Your task to perform on an android device: open sync settings in chrome Image 0: 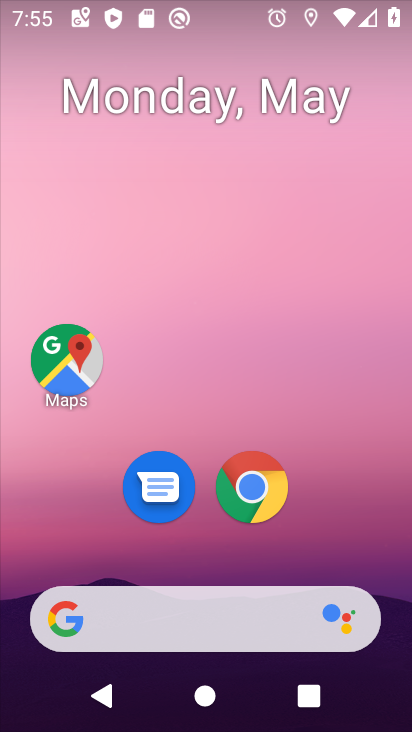
Step 0: press home button
Your task to perform on an android device: open sync settings in chrome Image 1: 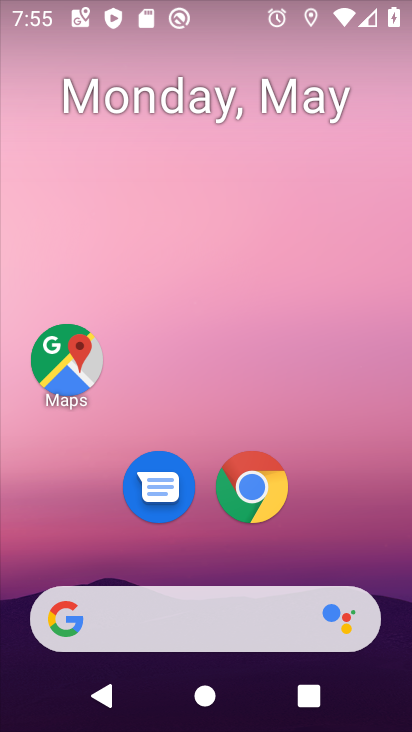
Step 1: click (262, 488)
Your task to perform on an android device: open sync settings in chrome Image 2: 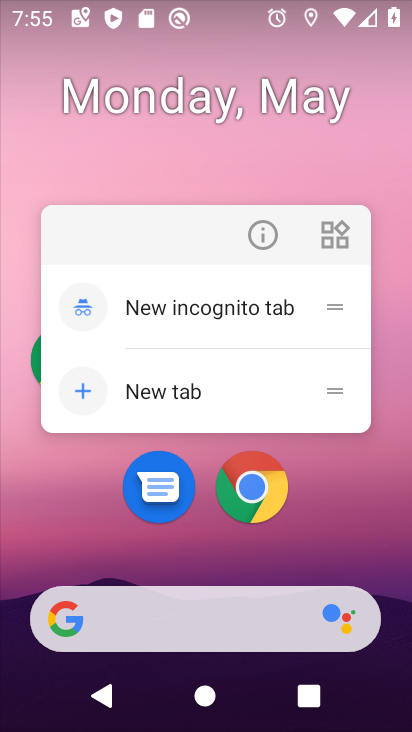
Step 2: click (335, 522)
Your task to perform on an android device: open sync settings in chrome Image 3: 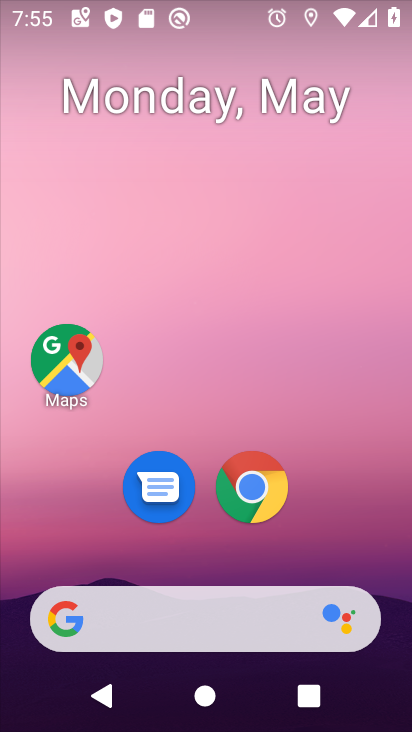
Step 3: drag from (329, 580) to (303, 135)
Your task to perform on an android device: open sync settings in chrome Image 4: 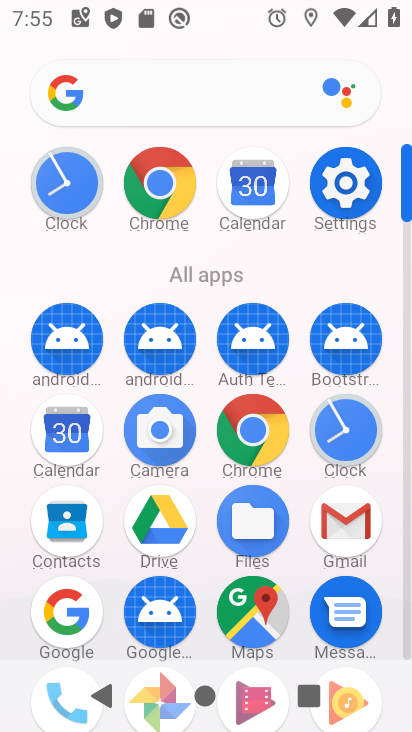
Step 4: click (182, 204)
Your task to perform on an android device: open sync settings in chrome Image 5: 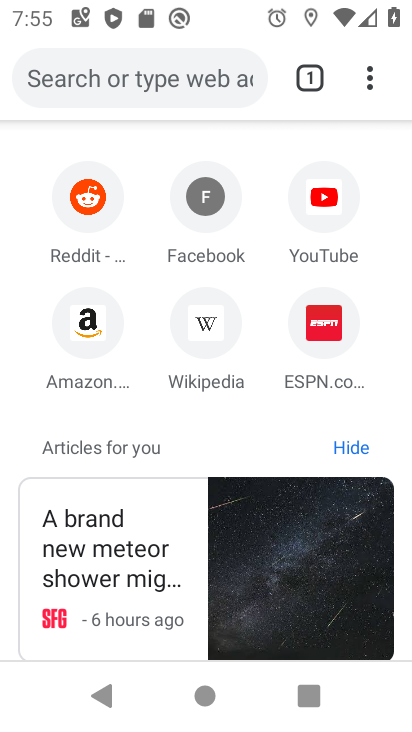
Step 5: drag from (371, 81) to (207, 551)
Your task to perform on an android device: open sync settings in chrome Image 6: 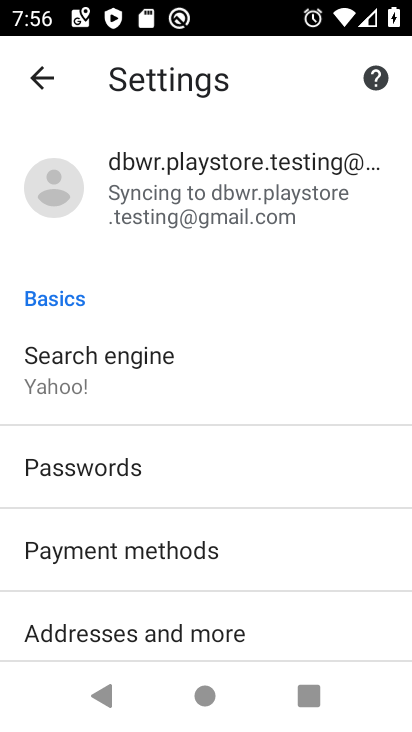
Step 6: click (206, 200)
Your task to perform on an android device: open sync settings in chrome Image 7: 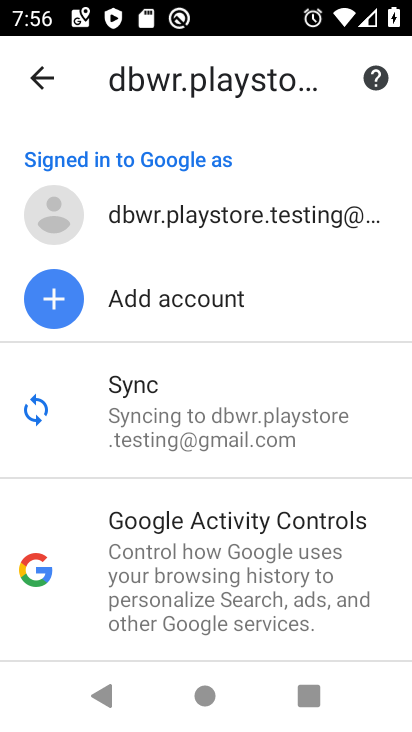
Step 7: click (145, 396)
Your task to perform on an android device: open sync settings in chrome Image 8: 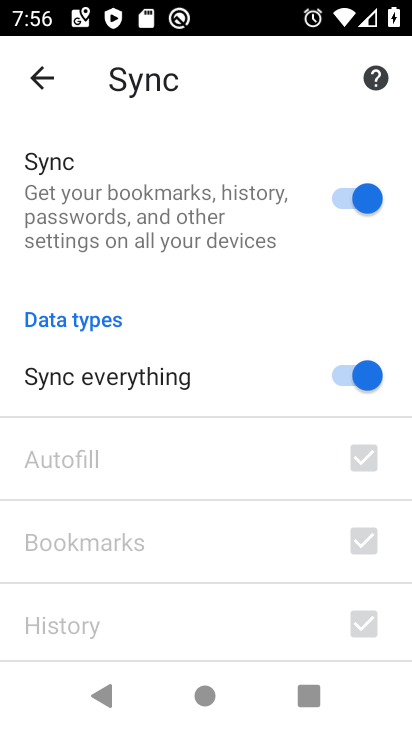
Step 8: task complete